Your task to perform on an android device: show emergency info Image 0: 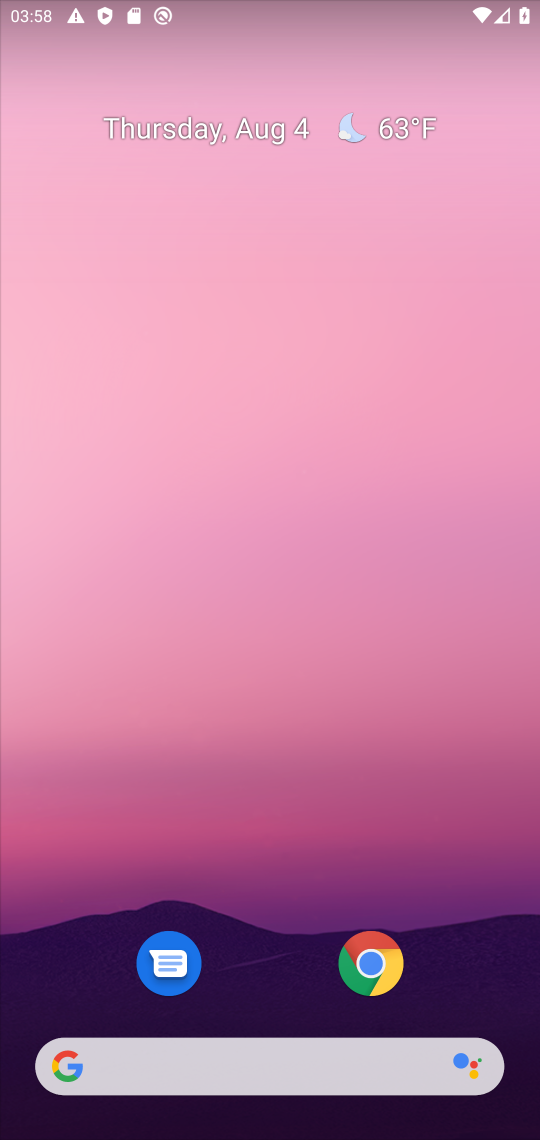
Step 0: drag from (282, 942) to (291, 0)
Your task to perform on an android device: show emergency info Image 1: 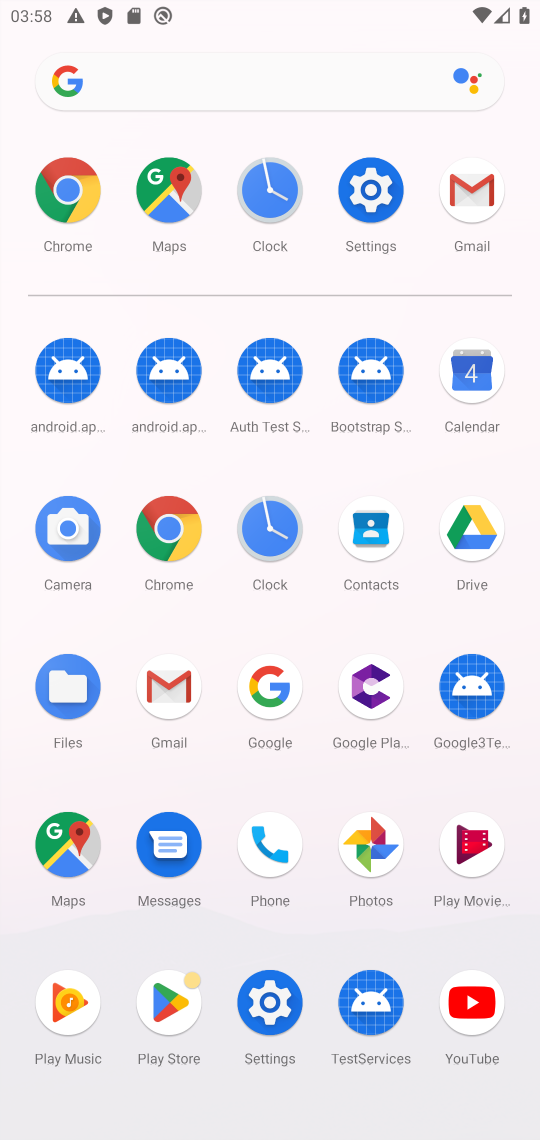
Step 1: click (359, 201)
Your task to perform on an android device: show emergency info Image 2: 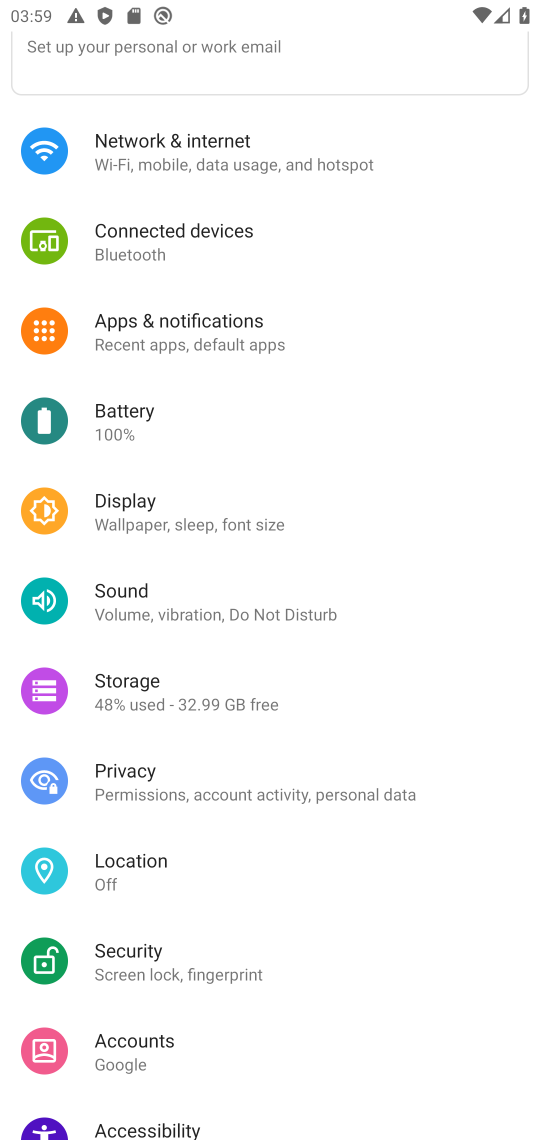
Step 2: drag from (422, 975) to (391, 106)
Your task to perform on an android device: show emergency info Image 3: 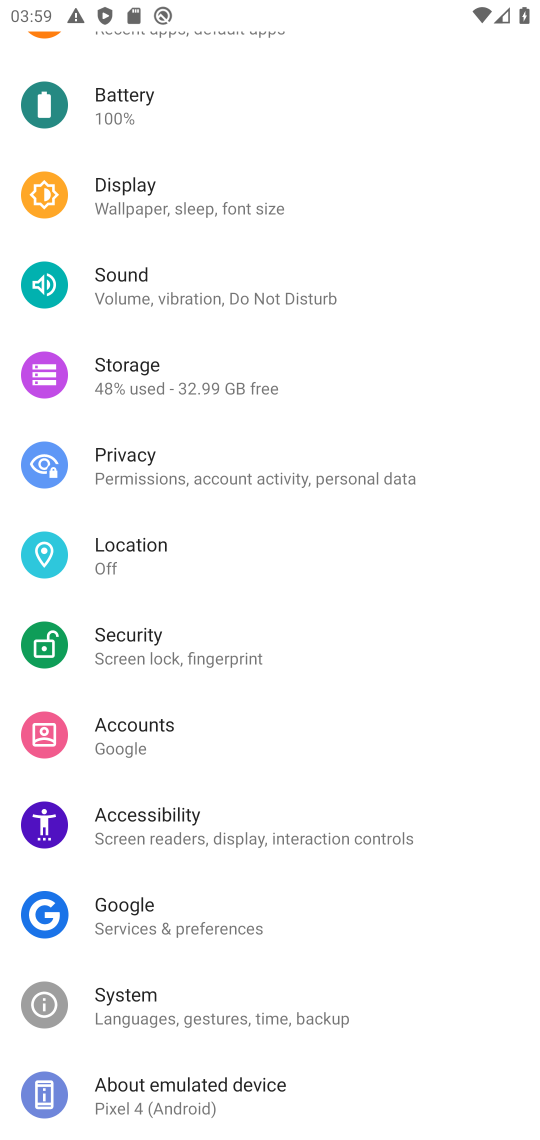
Step 3: click (159, 1108)
Your task to perform on an android device: show emergency info Image 4: 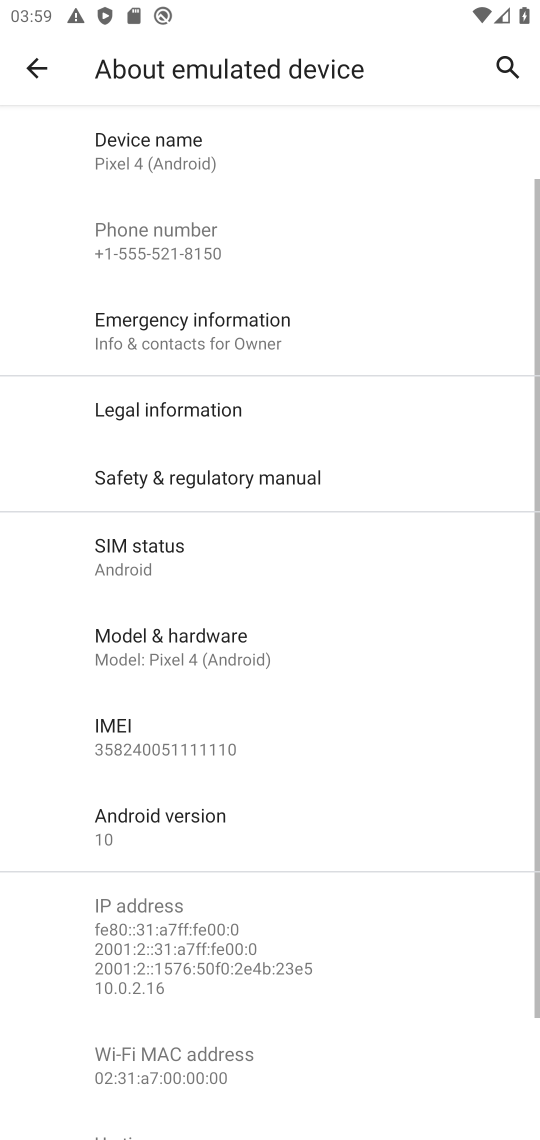
Step 4: click (178, 347)
Your task to perform on an android device: show emergency info Image 5: 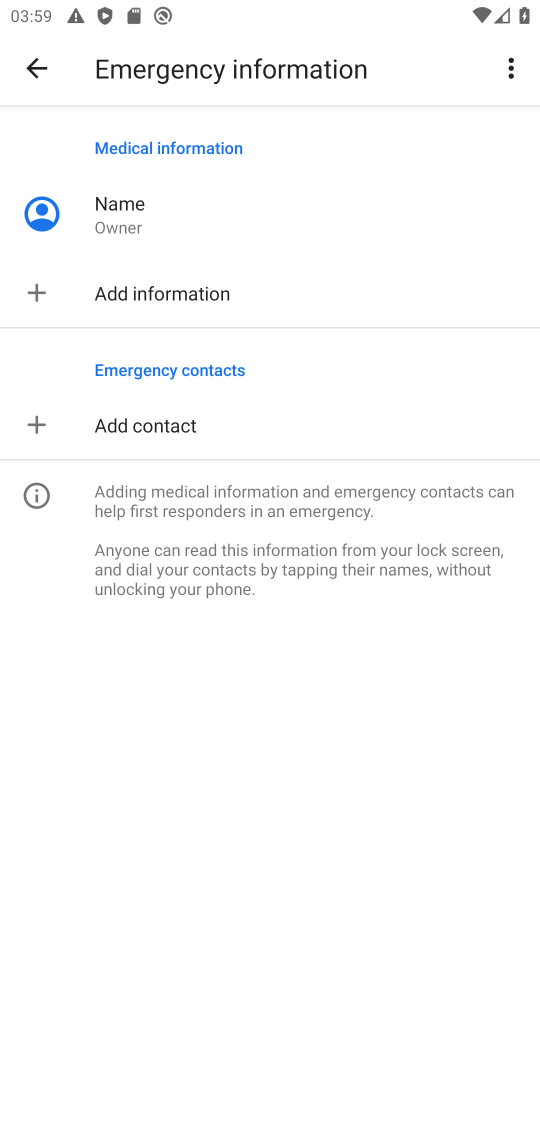
Step 5: task complete